Your task to perform on an android device: View the shopping cart on target. Search for "usb-b" on target, select the first entry, add it to the cart, then select checkout. Image 0: 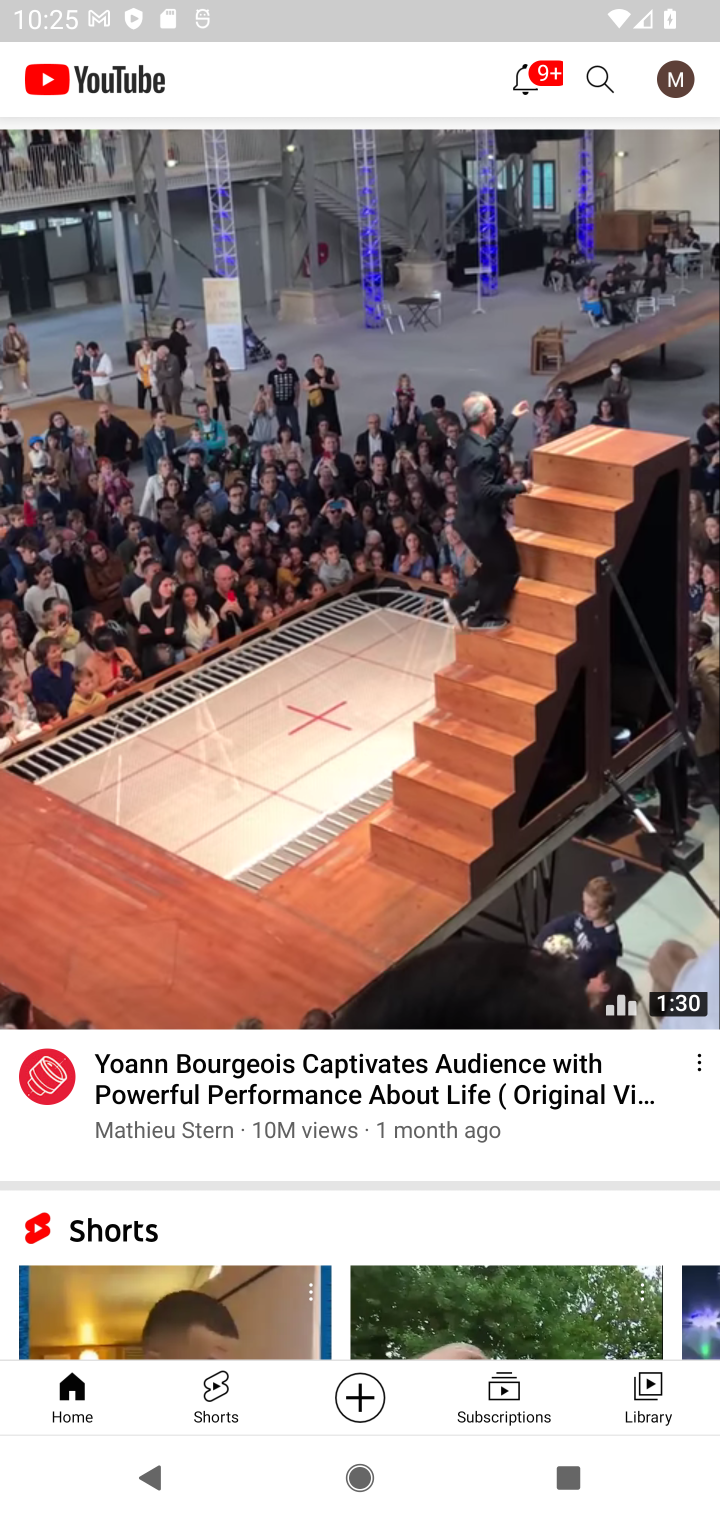
Step 0: press home button
Your task to perform on an android device: View the shopping cart on target. Search for "usb-b" on target, select the first entry, add it to the cart, then select checkout. Image 1: 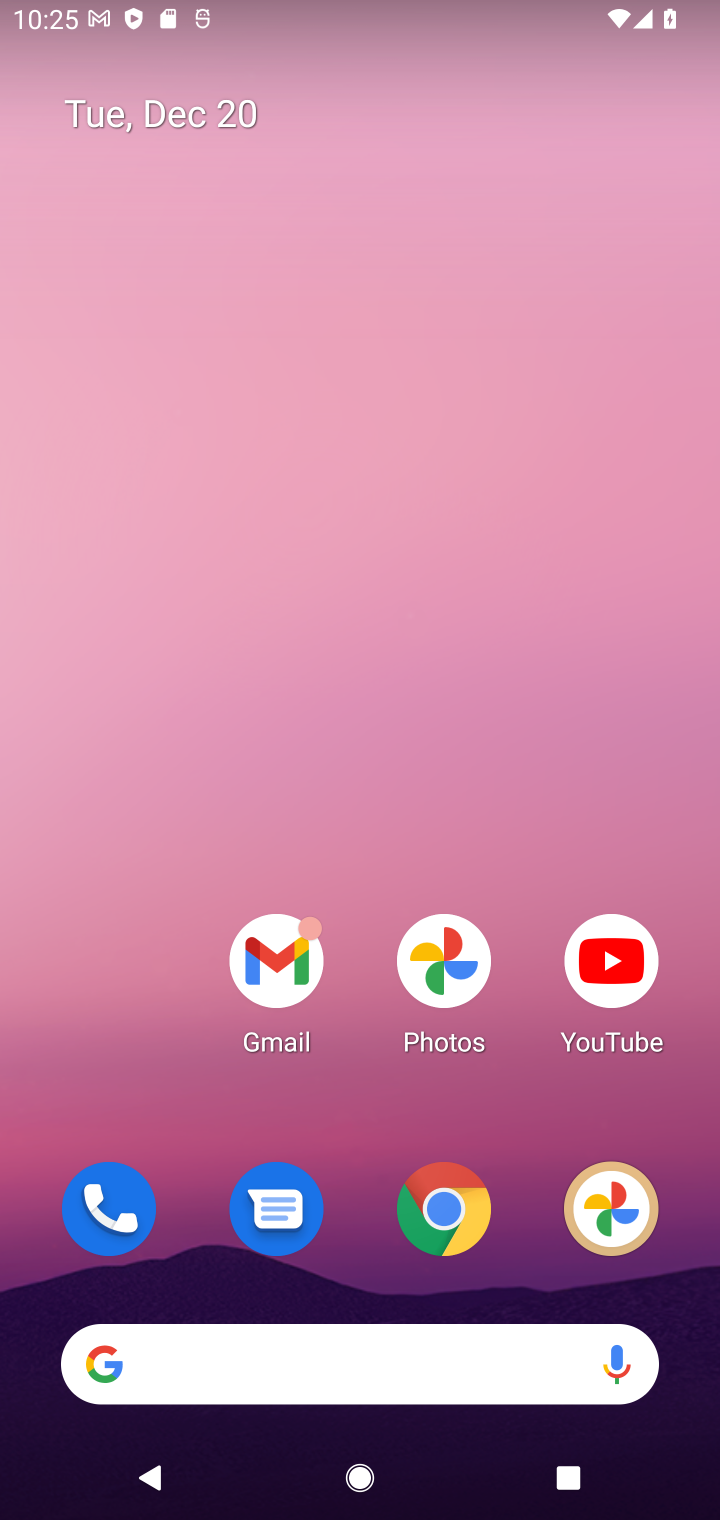
Step 1: click (438, 1218)
Your task to perform on an android device: View the shopping cart on target. Search for "usb-b" on target, select the first entry, add it to the cart, then select checkout. Image 2: 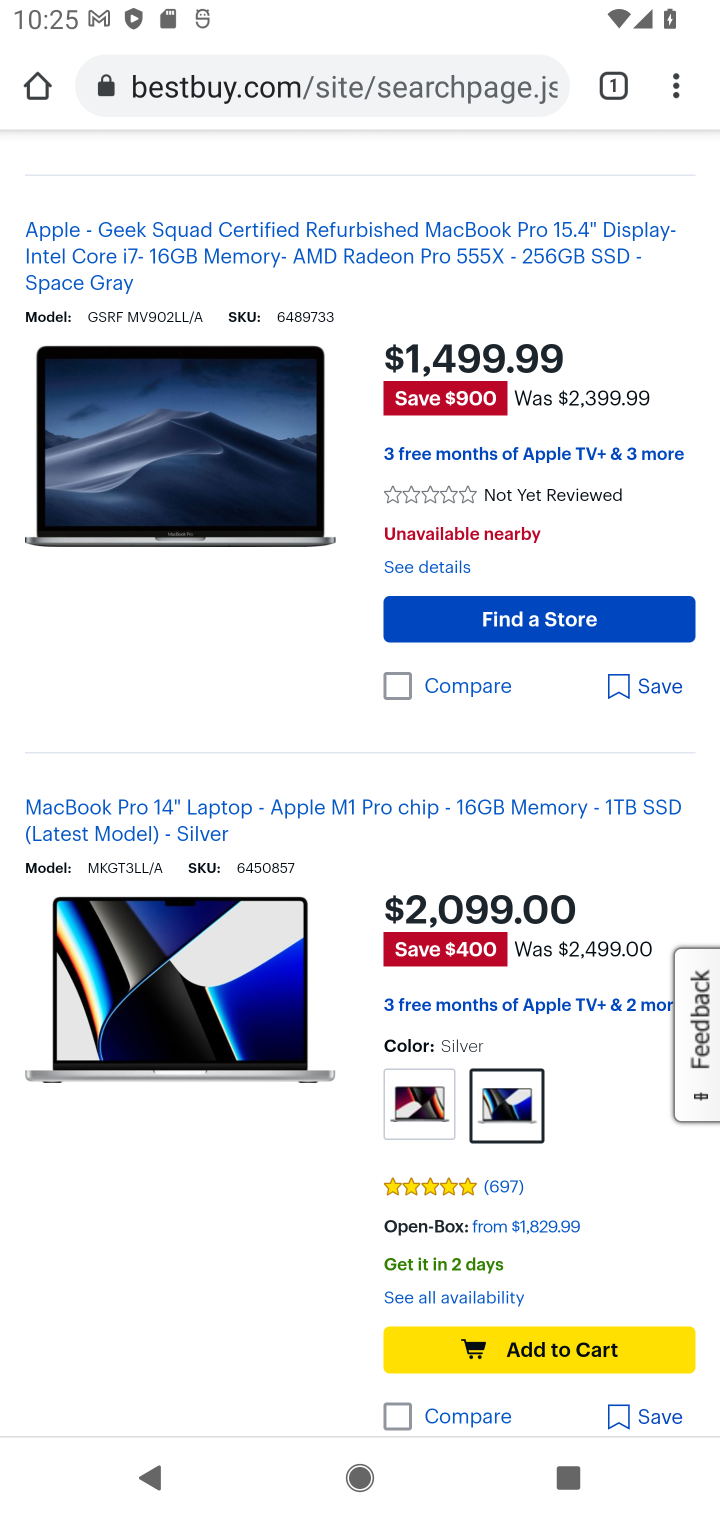
Step 2: click (268, 85)
Your task to perform on an android device: View the shopping cart on target. Search for "usb-b" on target, select the first entry, add it to the cart, then select checkout. Image 3: 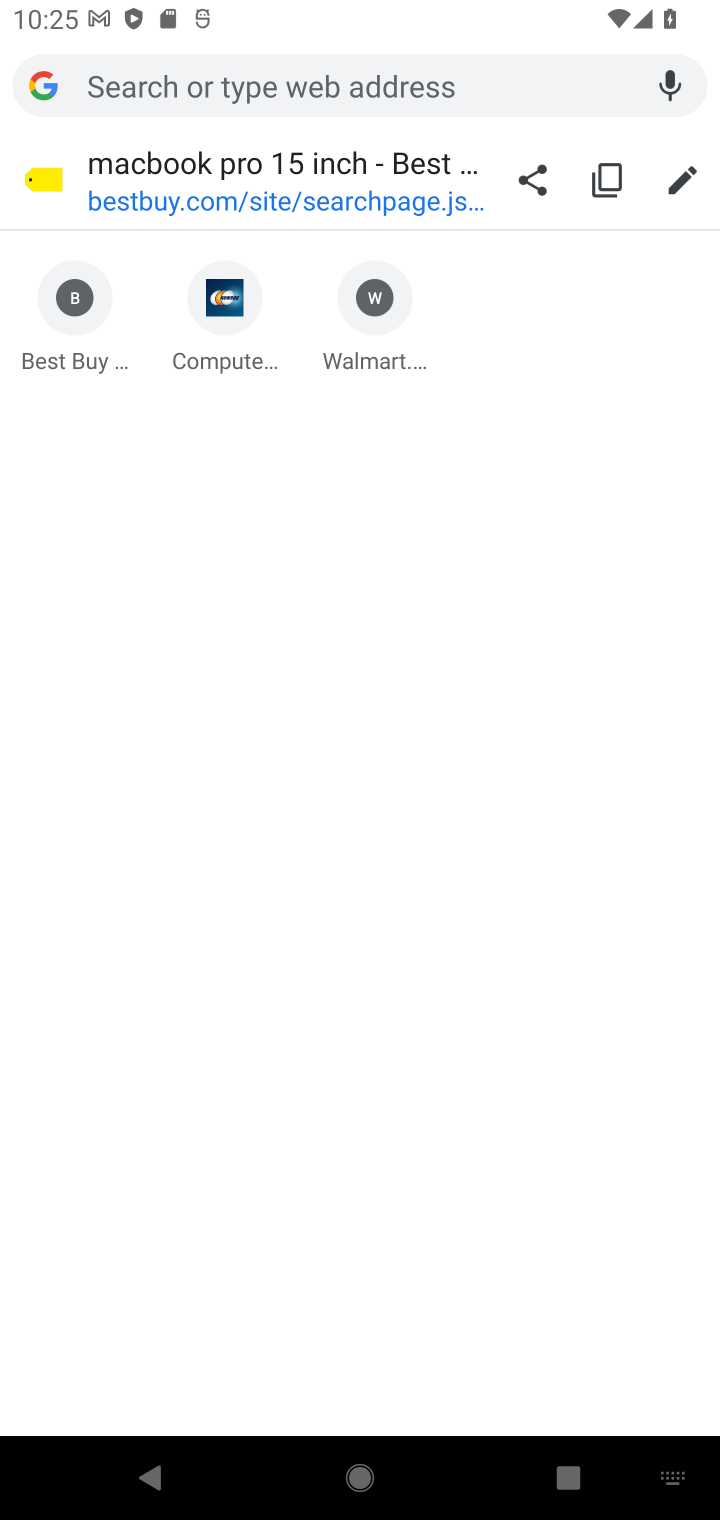
Step 3: type "target.com"
Your task to perform on an android device: View the shopping cart on target. Search for "usb-b" on target, select the first entry, add it to the cart, then select checkout. Image 4: 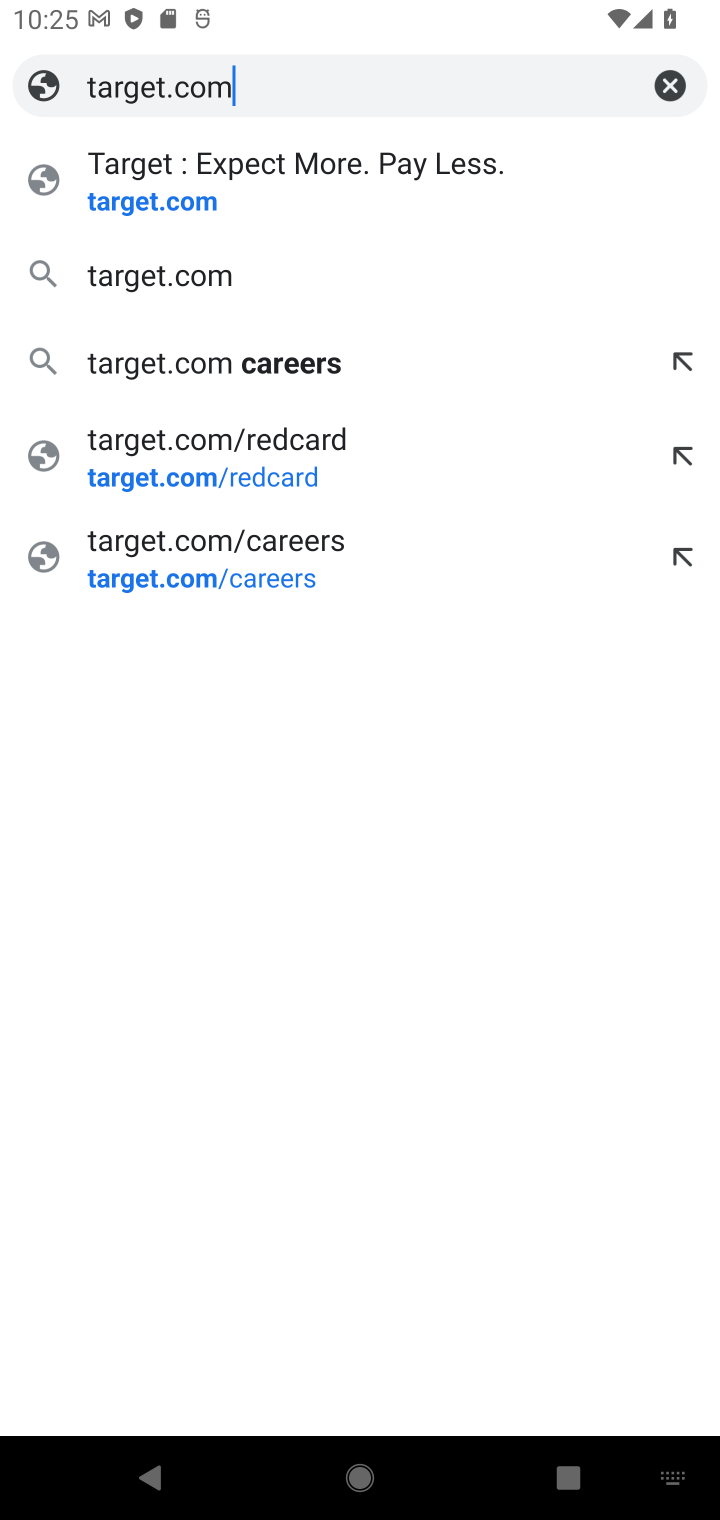
Step 4: click (126, 193)
Your task to perform on an android device: View the shopping cart on target. Search for "usb-b" on target, select the first entry, add it to the cart, then select checkout. Image 5: 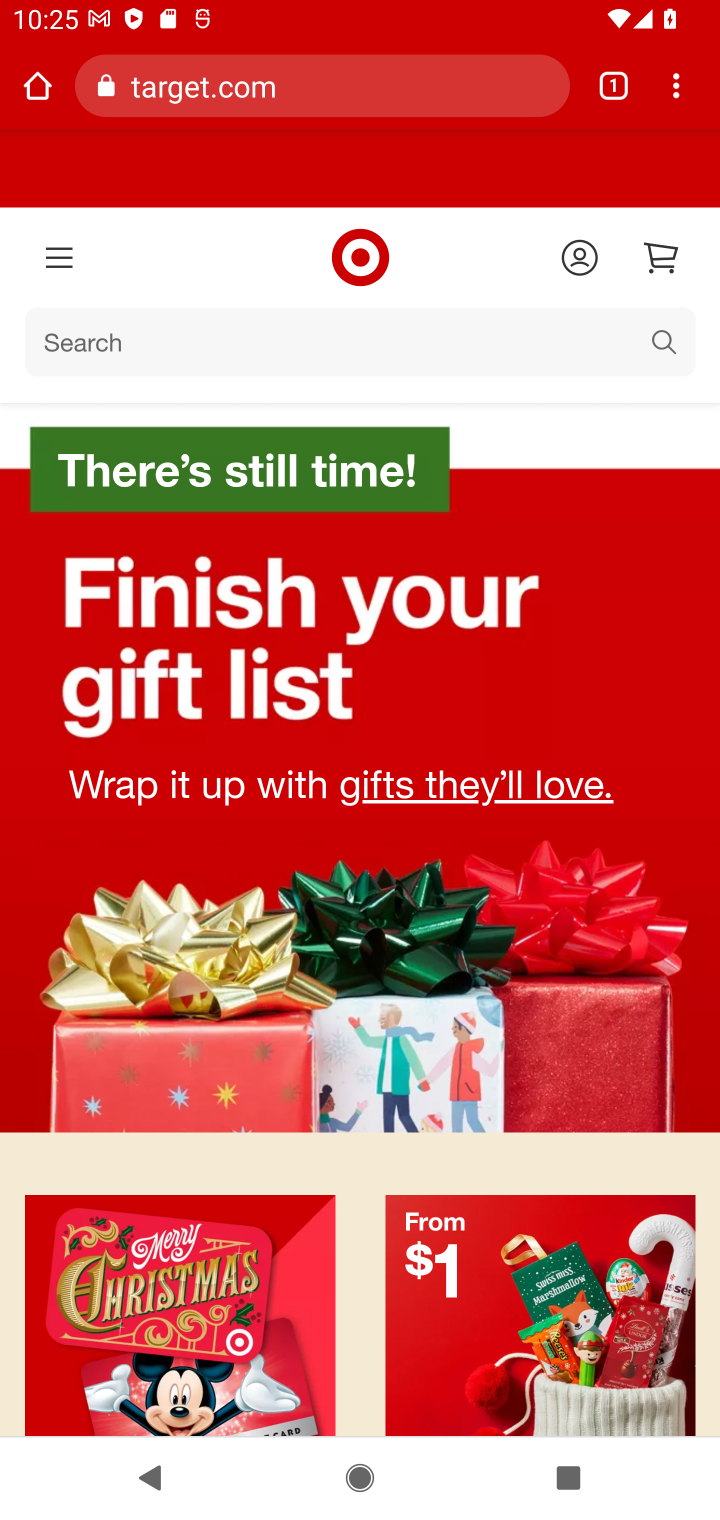
Step 5: click (663, 265)
Your task to perform on an android device: View the shopping cart on target. Search for "usb-b" on target, select the first entry, add it to the cart, then select checkout. Image 6: 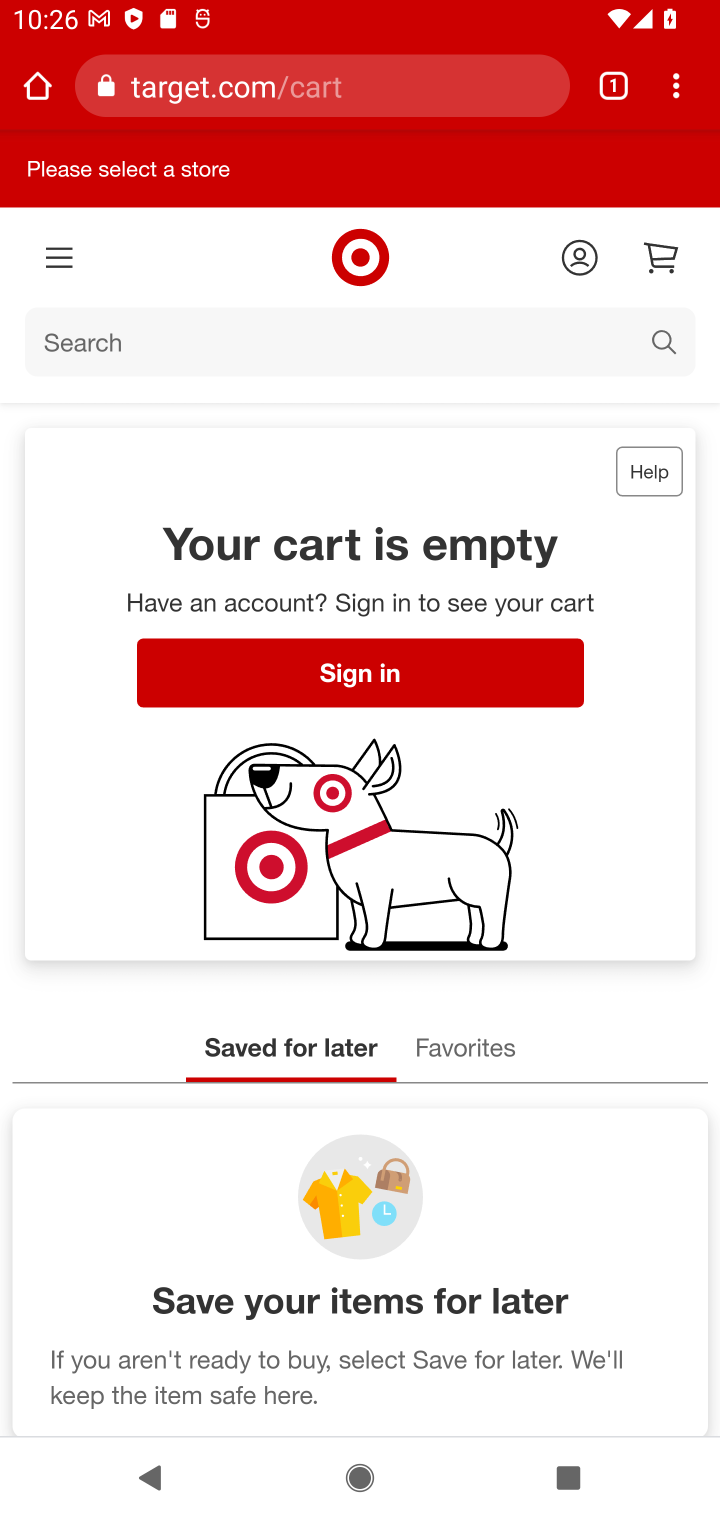
Step 6: click (99, 339)
Your task to perform on an android device: View the shopping cart on target. Search for "usb-b" on target, select the first entry, add it to the cart, then select checkout. Image 7: 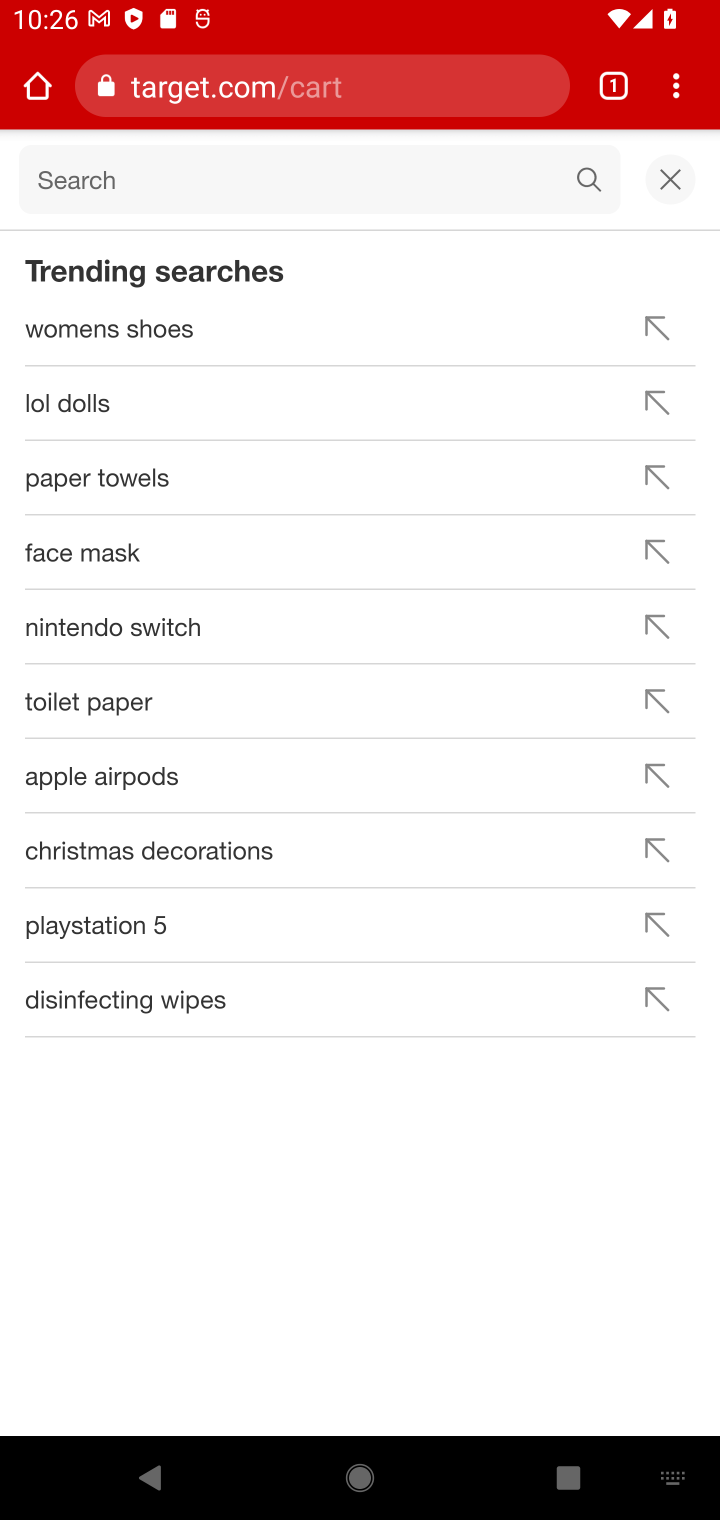
Step 7: type "usb-b"
Your task to perform on an android device: View the shopping cart on target. Search for "usb-b" on target, select the first entry, add it to the cart, then select checkout. Image 8: 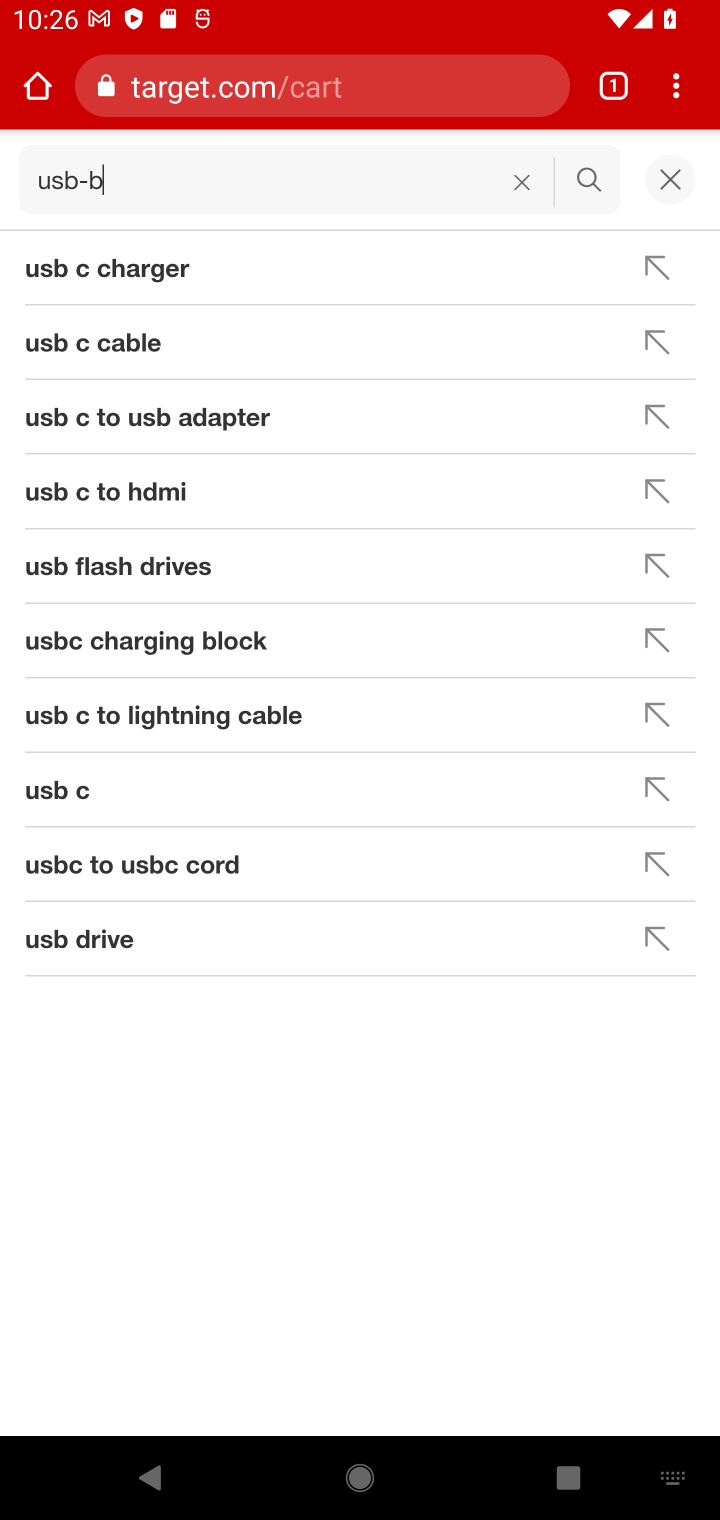
Step 8: click (579, 176)
Your task to perform on an android device: View the shopping cart on target. Search for "usb-b" on target, select the first entry, add it to the cart, then select checkout. Image 9: 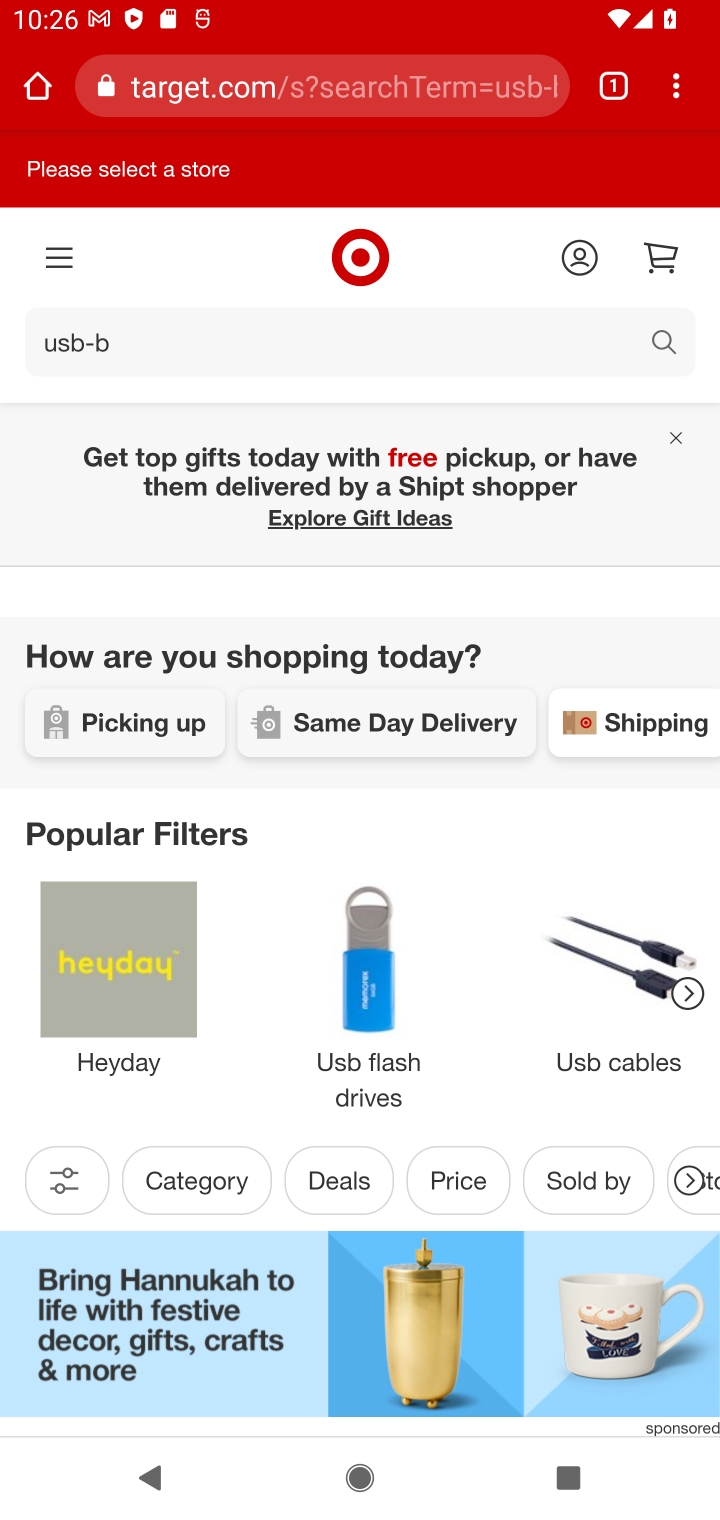
Step 9: task complete